Your task to perform on an android device: turn on airplane mode Image 0: 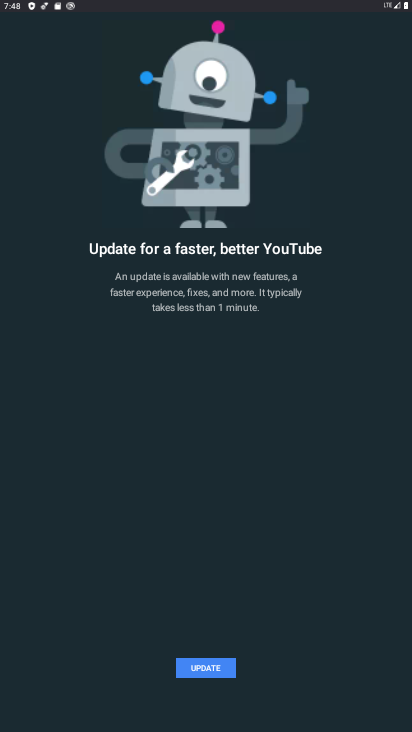
Step 0: press home button
Your task to perform on an android device: turn on airplane mode Image 1: 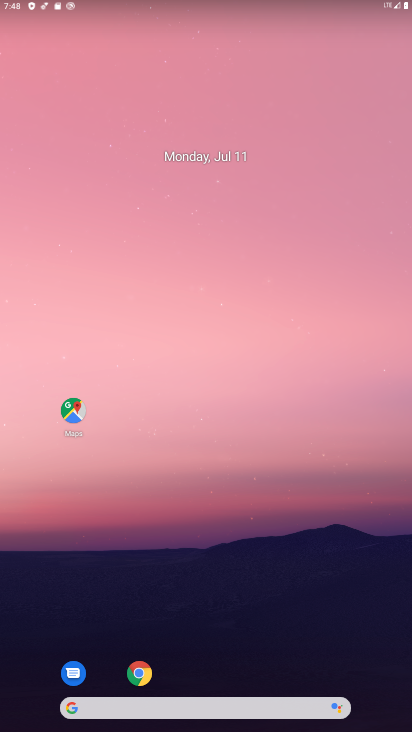
Step 1: drag from (228, 703) to (161, 358)
Your task to perform on an android device: turn on airplane mode Image 2: 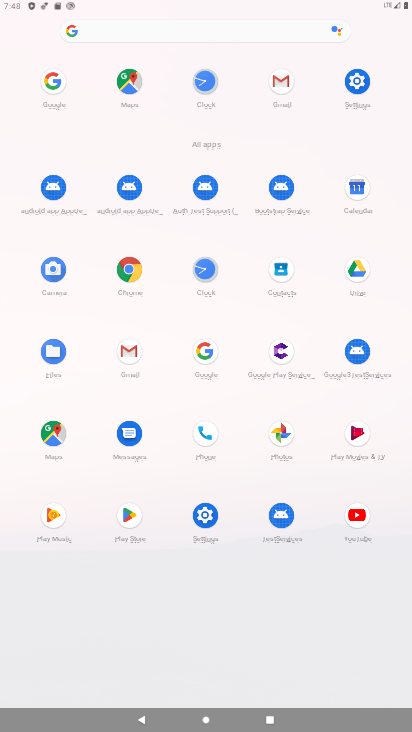
Step 2: click (351, 92)
Your task to perform on an android device: turn on airplane mode Image 3: 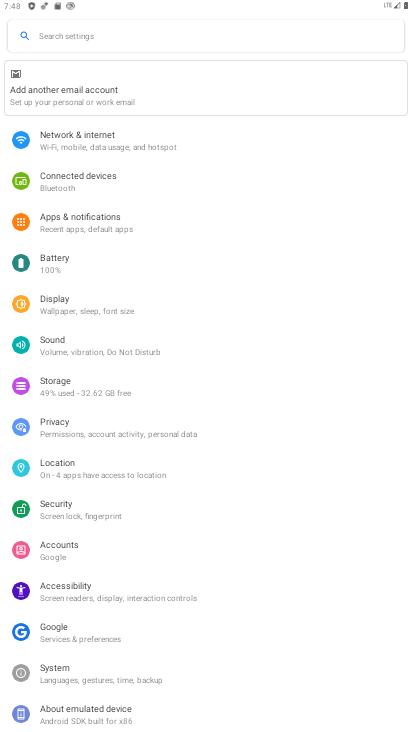
Step 3: click (108, 145)
Your task to perform on an android device: turn on airplane mode Image 4: 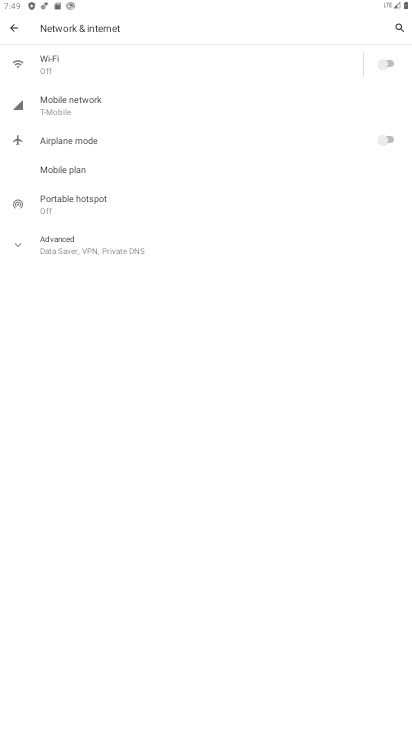
Step 4: click (393, 138)
Your task to perform on an android device: turn on airplane mode Image 5: 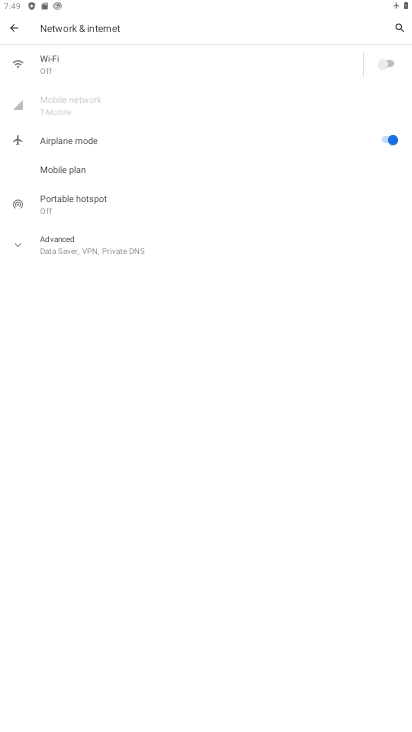
Step 5: task complete